Your task to perform on an android device: turn on the 24-hour format for clock Image 0: 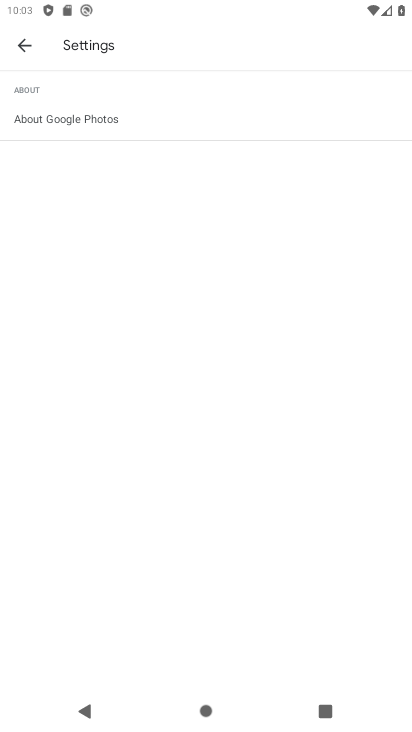
Step 0: press home button
Your task to perform on an android device: turn on the 24-hour format for clock Image 1: 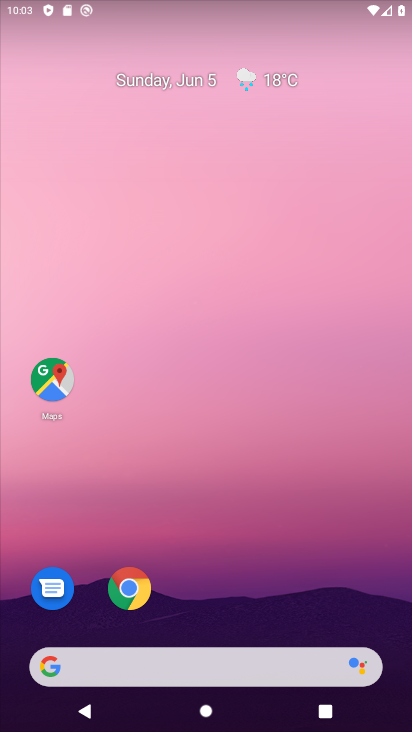
Step 1: drag from (231, 618) to (346, 188)
Your task to perform on an android device: turn on the 24-hour format for clock Image 2: 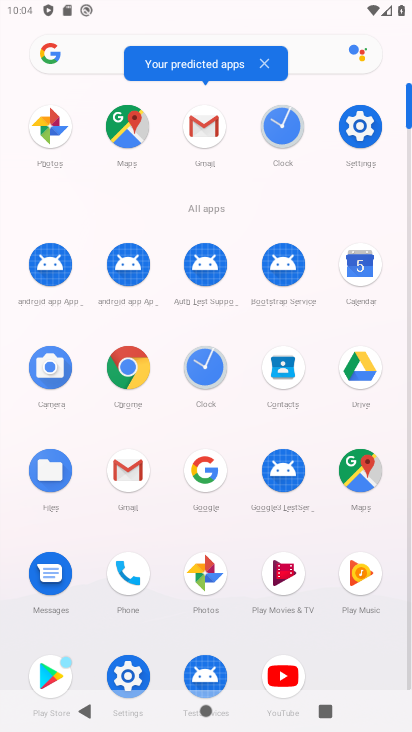
Step 2: click (206, 381)
Your task to perform on an android device: turn on the 24-hour format for clock Image 3: 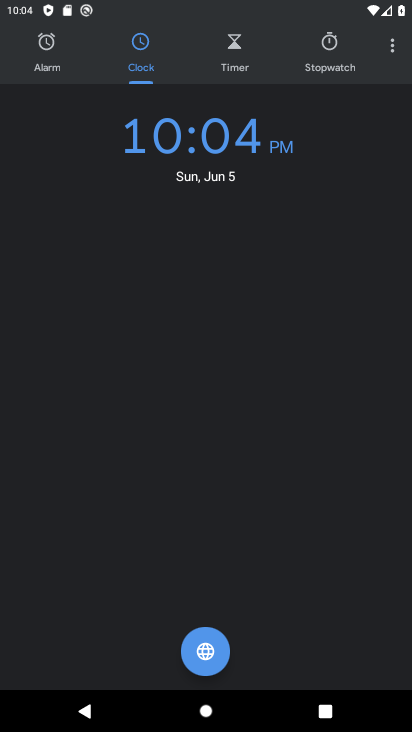
Step 3: click (386, 59)
Your task to perform on an android device: turn on the 24-hour format for clock Image 4: 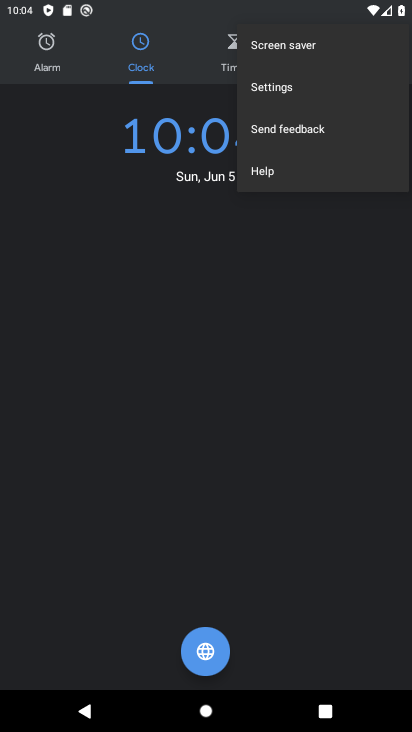
Step 4: click (365, 91)
Your task to perform on an android device: turn on the 24-hour format for clock Image 5: 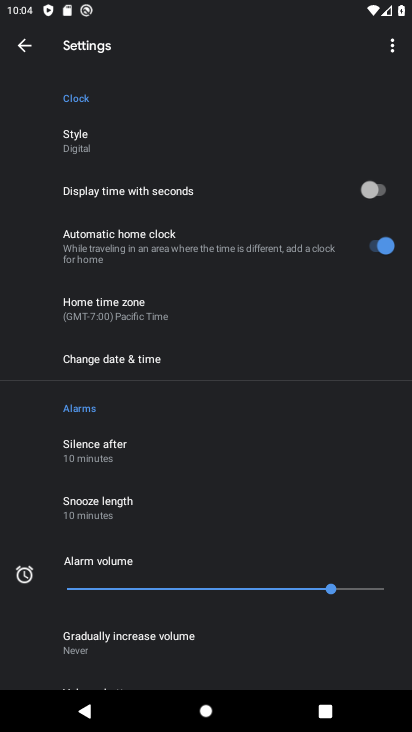
Step 5: click (206, 364)
Your task to perform on an android device: turn on the 24-hour format for clock Image 6: 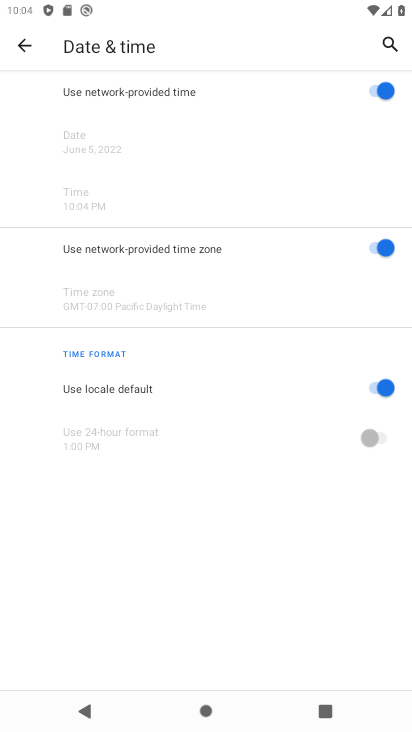
Step 6: click (379, 385)
Your task to perform on an android device: turn on the 24-hour format for clock Image 7: 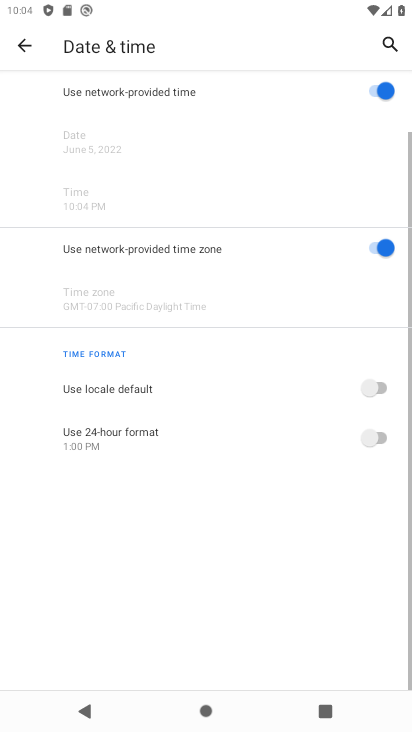
Step 7: click (390, 430)
Your task to perform on an android device: turn on the 24-hour format for clock Image 8: 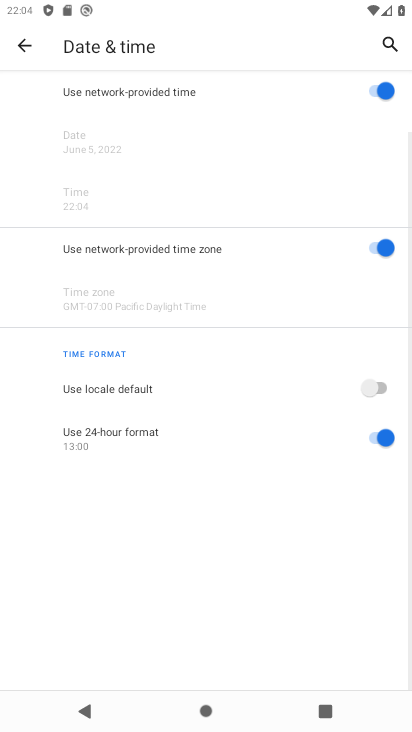
Step 8: task complete